Your task to perform on an android device: Go to sound settings Image 0: 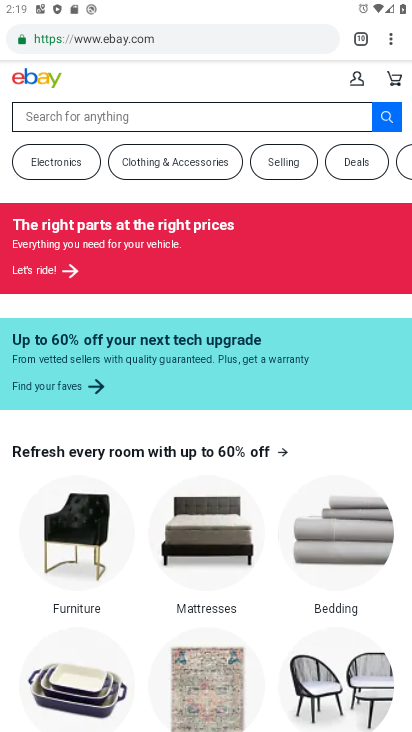
Step 0: press home button
Your task to perform on an android device: Go to sound settings Image 1: 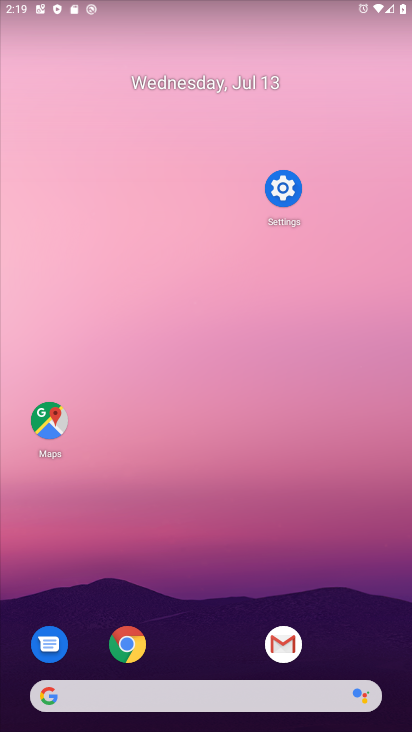
Step 1: click (284, 180)
Your task to perform on an android device: Go to sound settings Image 2: 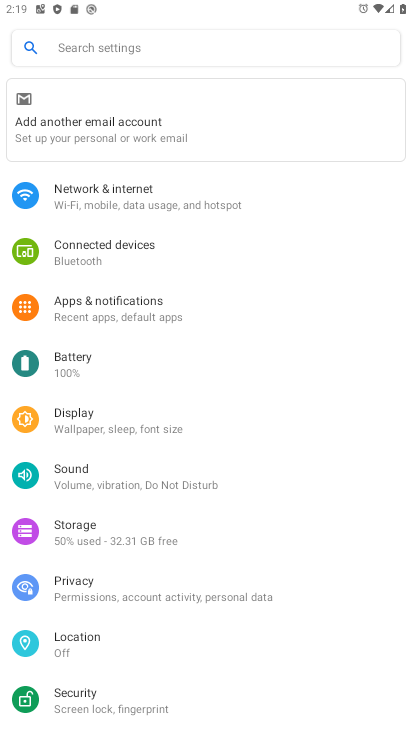
Step 2: click (103, 477)
Your task to perform on an android device: Go to sound settings Image 3: 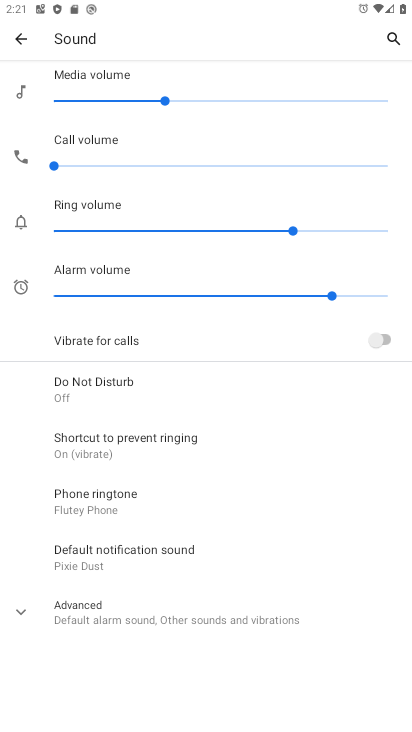
Step 3: task complete